Your task to perform on an android device: Go to Reddit.com Image 0: 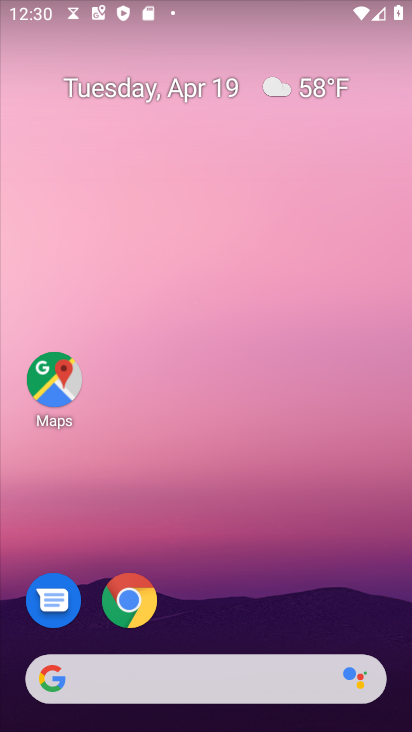
Step 0: click (104, 596)
Your task to perform on an android device: Go to Reddit.com Image 1: 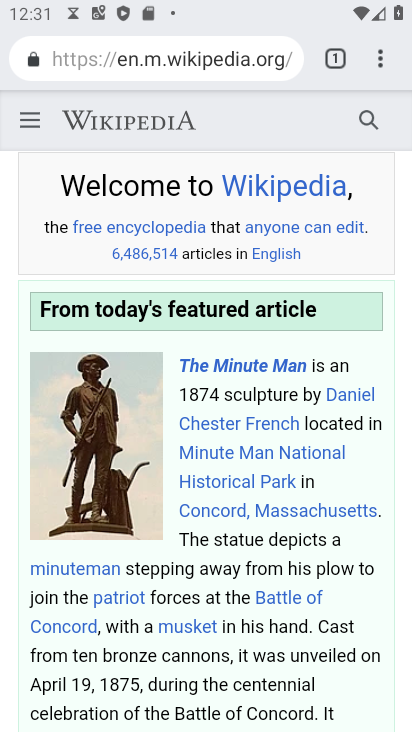
Step 1: click (205, 71)
Your task to perform on an android device: Go to Reddit.com Image 2: 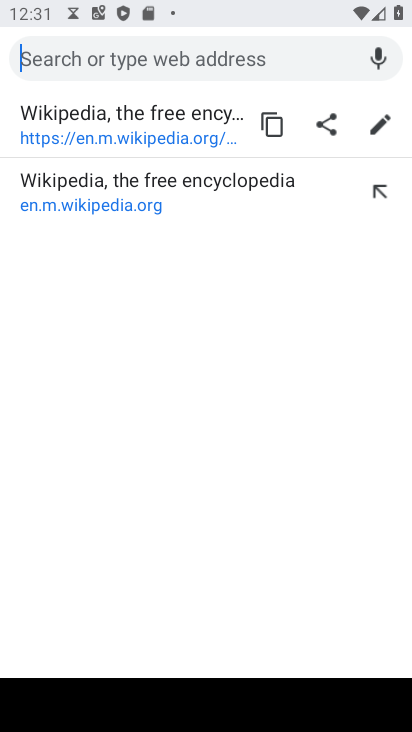
Step 2: type "reddit.com"
Your task to perform on an android device: Go to Reddit.com Image 3: 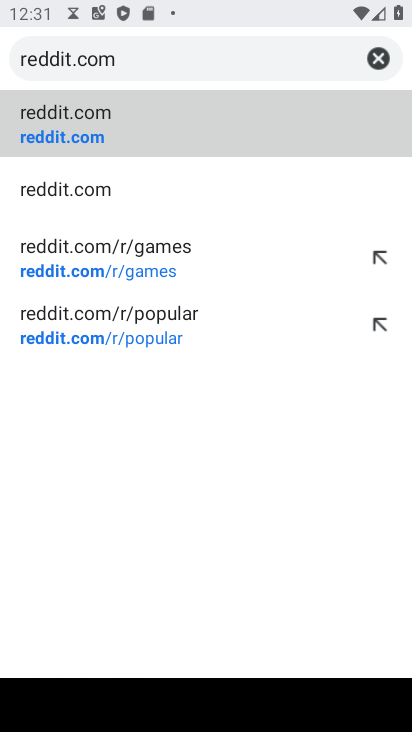
Step 3: click (162, 119)
Your task to perform on an android device: Go to Reddit.com Image 4: 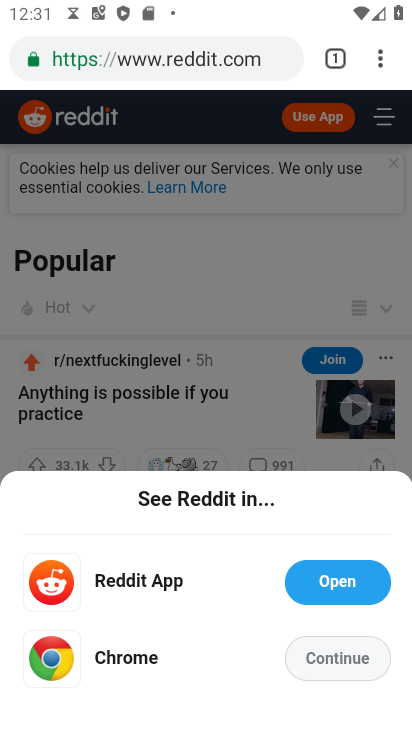
Step 4: task complete